Your task to perform on an android device: allow notifications from all sites in the chrome app Image 0: 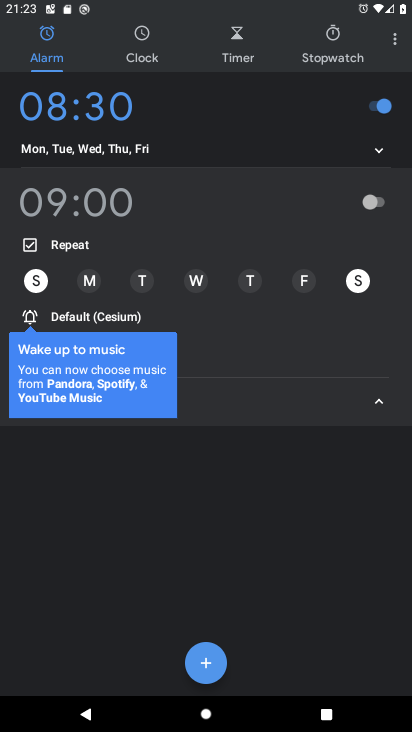
Step 0: press home button
Your task to perform on an android device: allow notifications from all sites in the chrome app Image 1: 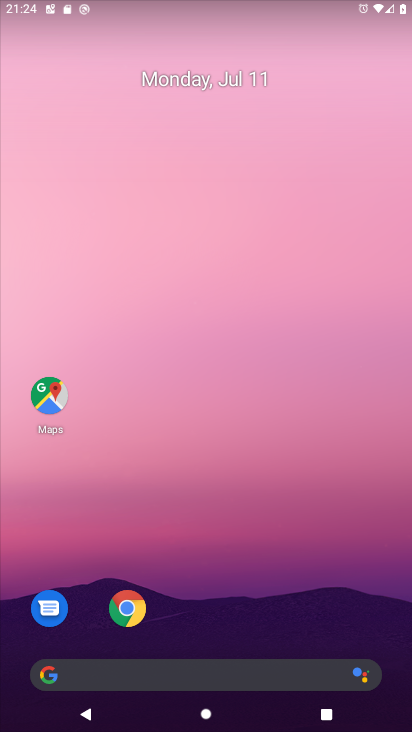
Step 1: click (148, 606)
Your task to perform on an android device: allow notifications from all sites in the chrome app Image 2: 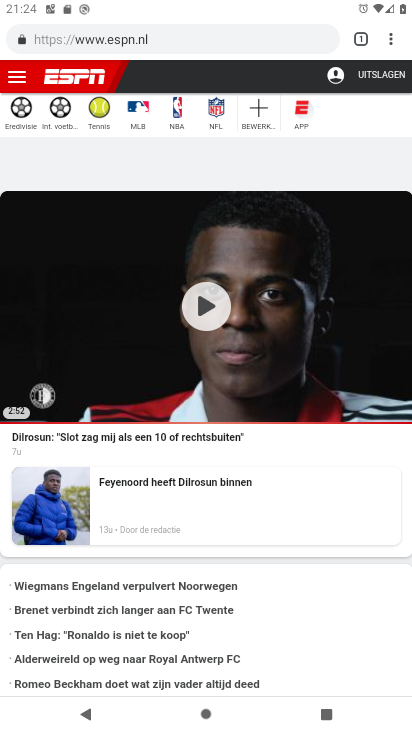
Step 2: click (395, 45)
Your task to perform on an android device: allow notifications from all sites in the chrome app Image 3: 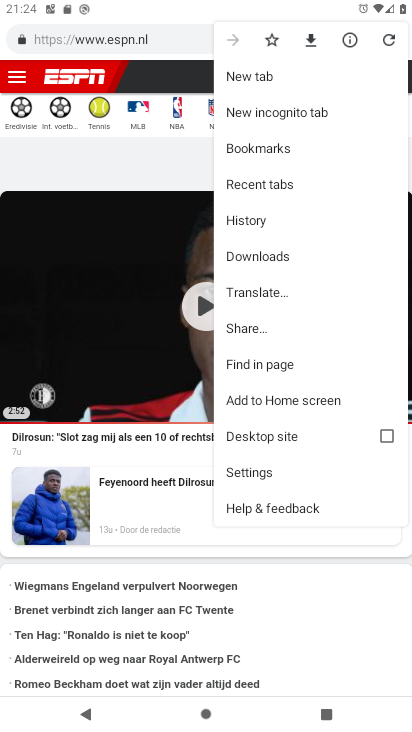
Step 3: click (277, 467)
Your task to perform on an android device: allow notifications from all sites in the chrome app Image 4: 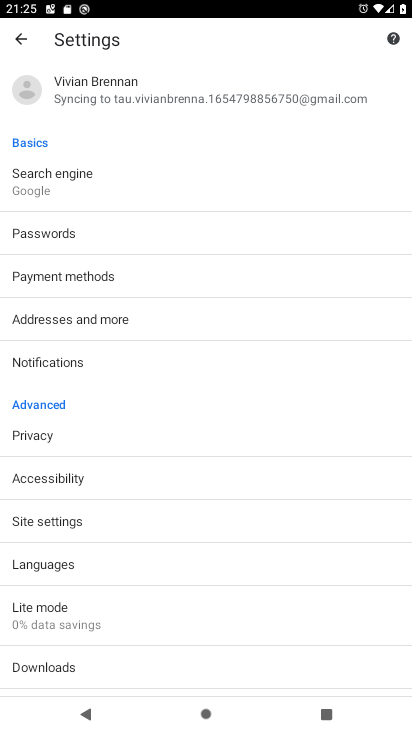
Step 4: click (121, 363)
Your task to perform on an android device: allow notifications from all sites in the chrome app Image 5: 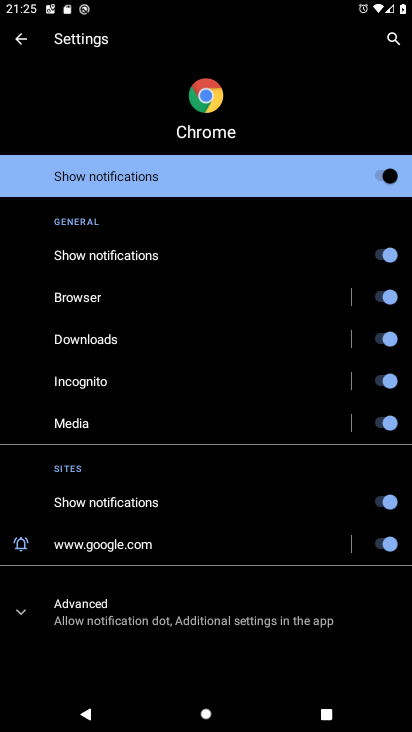
Step 5: task complete